Your task to perform on an android device: turn on the 12-hour format for clock Image 0: 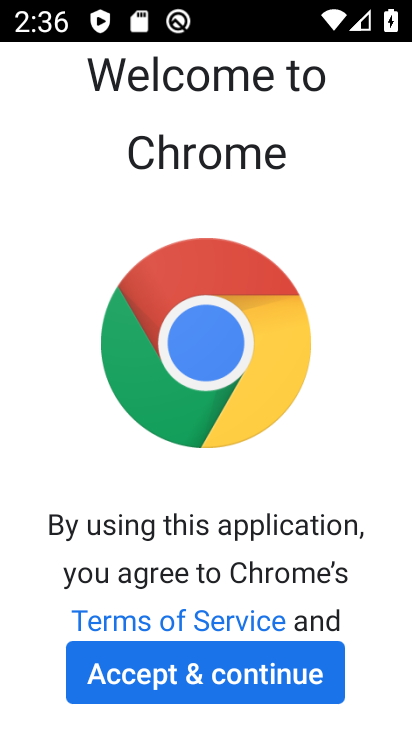
Step 0: press home button
Your task to perform on an android device: turn on the 12-hour format for clock Image 1: 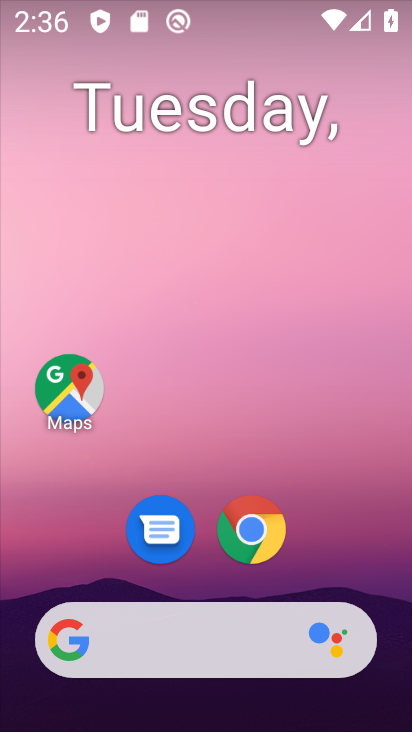
Step 1: drag from (102, 604) to (273, 120)
Your task to perform on an android device: turn on the 12-hour format for clock Image 2: 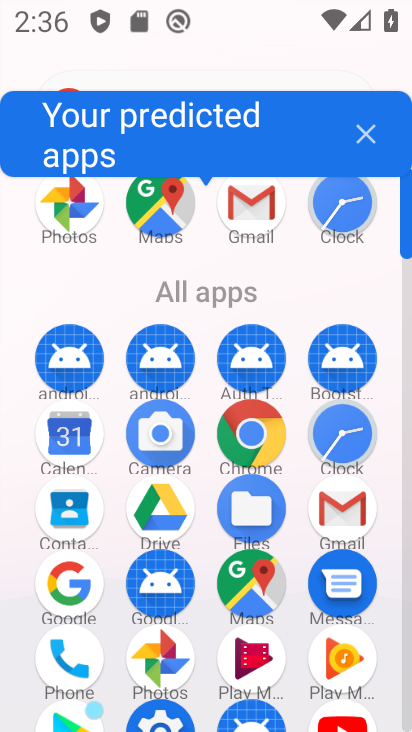
Step 2: click (351, 447)
Your task to perform on an android device: turn on the 12-hour format for clock Image 3: 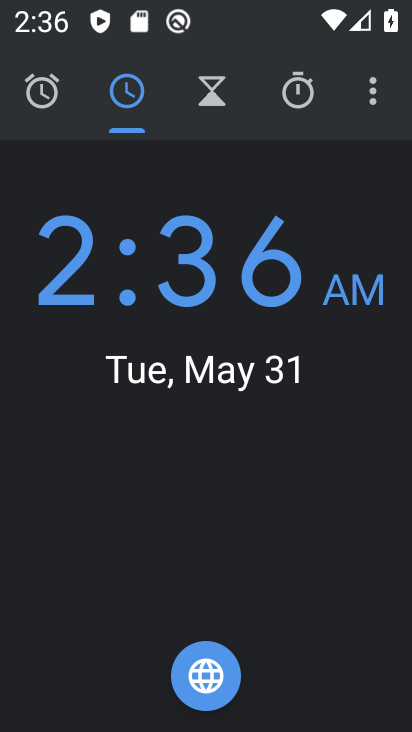
Step 3: click (400, 106)
Your task to perform on an android device: turn on the 12-hour format for clock Image 4: 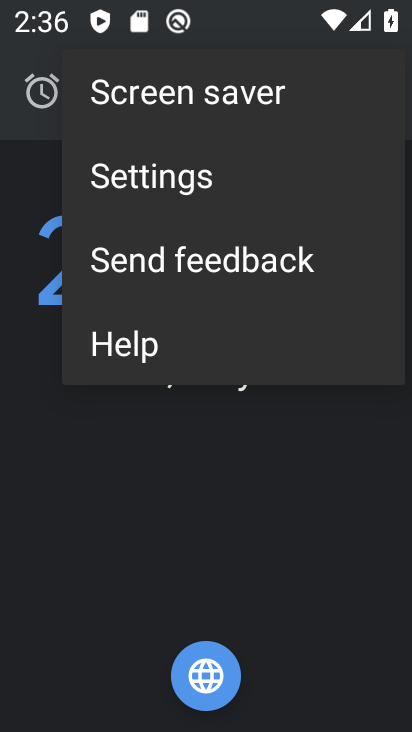
Step 4: click (368, 154)
Your task to perform on an android device: turn on the 12-hour format for clock Image 5: 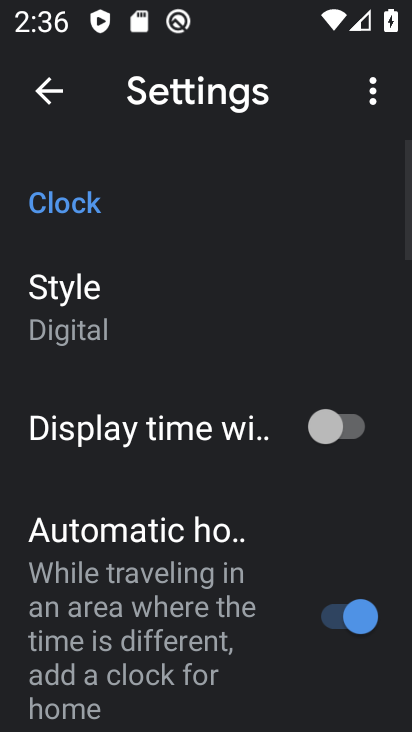
Step 5: drag from (192, 590) to (310, 116)
Your task to perform on an android device: turn on the 12-hour format for clock Image 6: 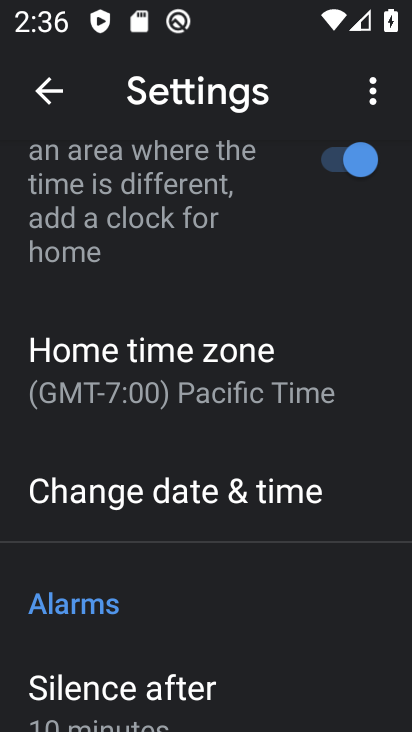
Step 6: click (320, 508)
Your task to perform on an android device: turn on the 12-hour format for clock Image 7: 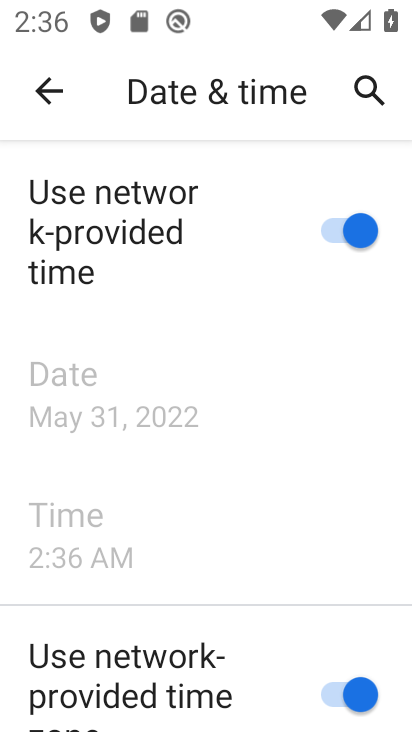
Step 7: task complete